Your task to perform on an android device: Search for vegetarian restaurants on Maps Image 0: 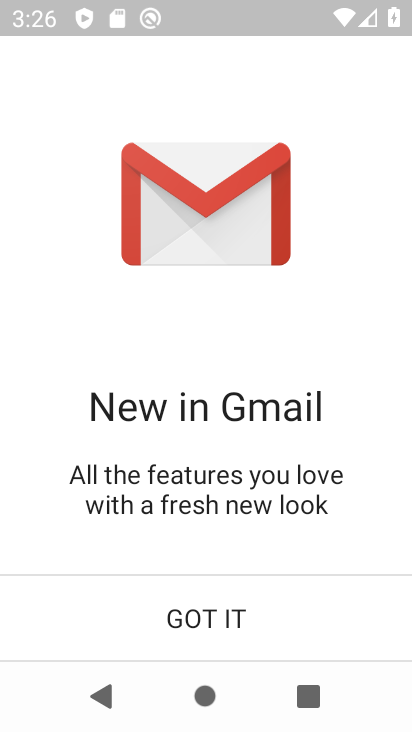
Step 0: press back button
Your task to perform on an android device: Search for vegetarian restaurants on Maps Image 1: 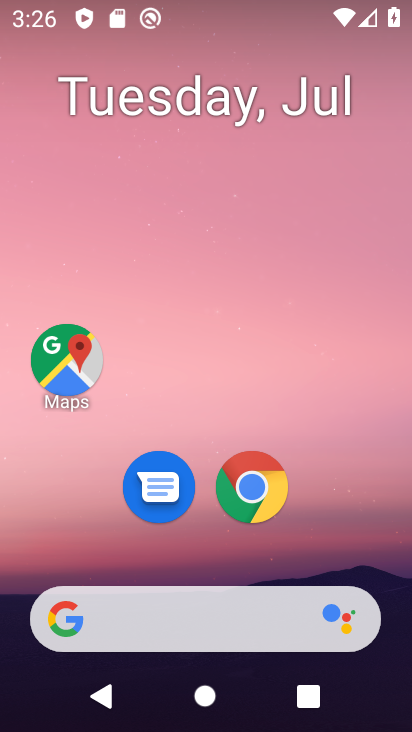
Step 1: click (68, 355)
Your task to perform on an android device: Search for vegetarian restaurants on Maps Image 2: 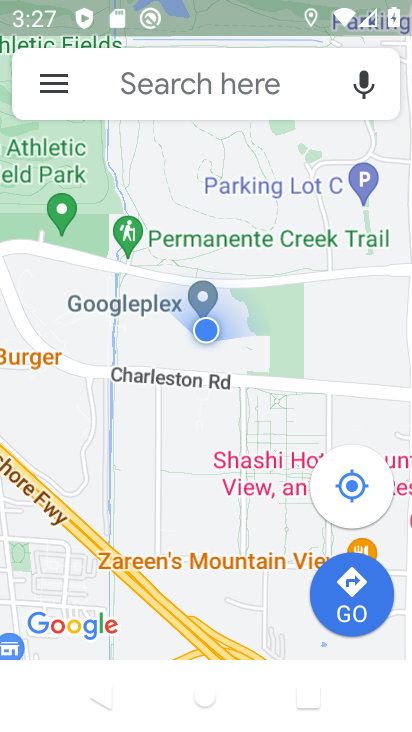
Step 2: click (174, 64)
Your task to perform on an android device: Search for vegetarian restaurants on Maps Image 3: 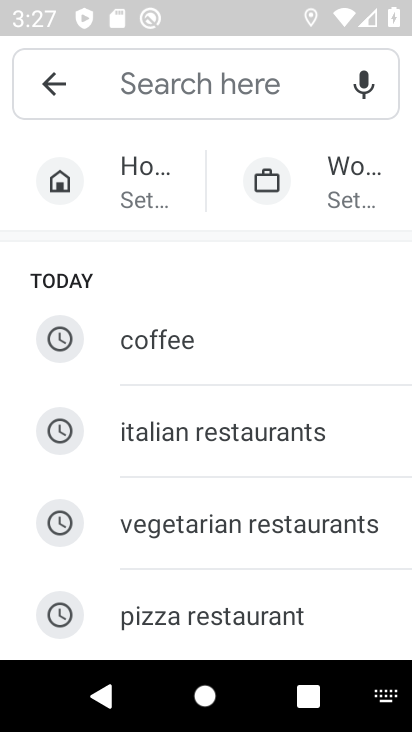
Step 3: click (173, 522)
Your task to perform on an android device: Search for vegetarian restaurants on Maps Image 4: 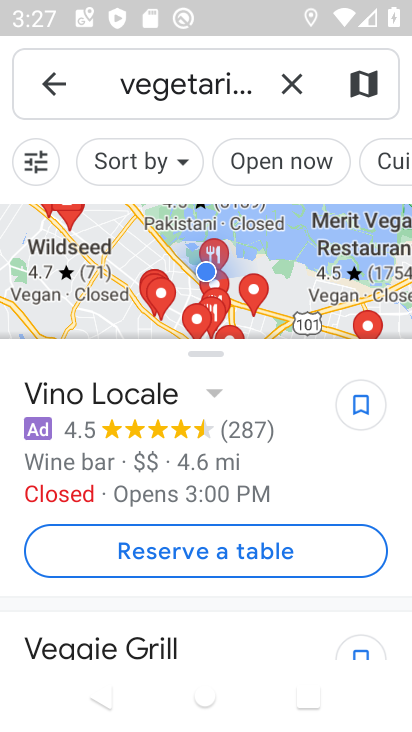
Step 4: task complete